Your task to perform on an android device: find which apps use the phone's location Image 0: 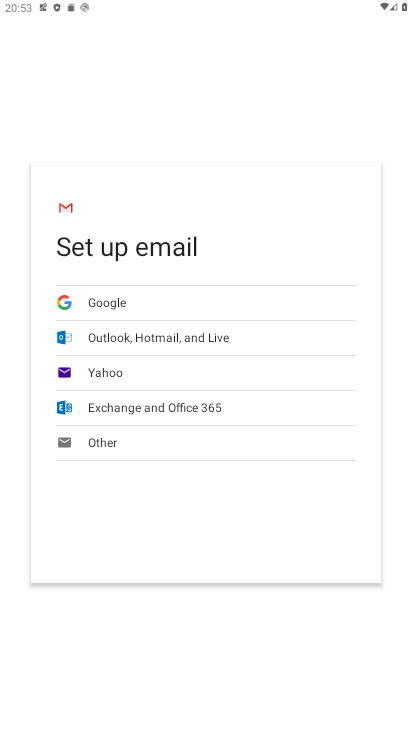
Step 0: press home button
Your task to perform on an android device: find which apps use the phone's location Image 1: 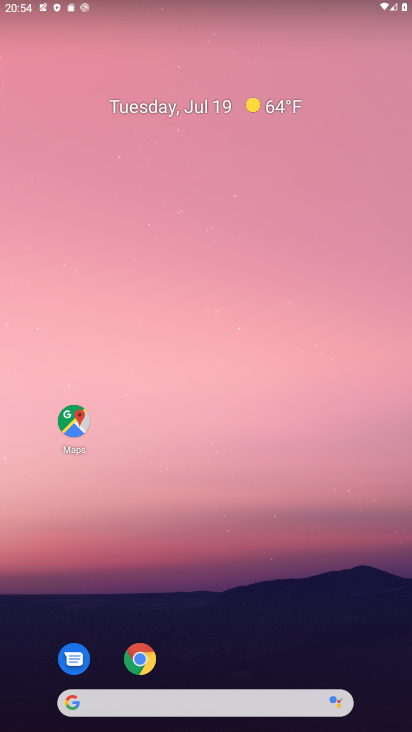
Step 1: drag from (207, 636) to (265, 71)
Your task to perform on an android device: find which apps use the phone's location Image 2: 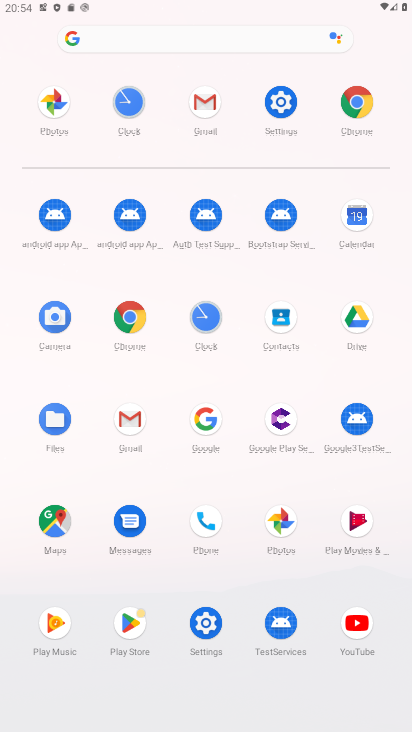
Step 2: click (289, 102)
Your task to perform on an android device: find which apps use the phone's location Image 3: 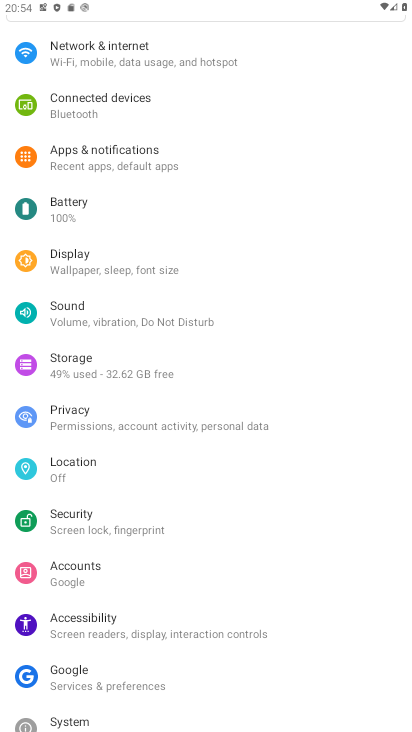
Step 3: click (88, 476)
Your task to perform on an android device: find which apps use the phone's location Image 4: 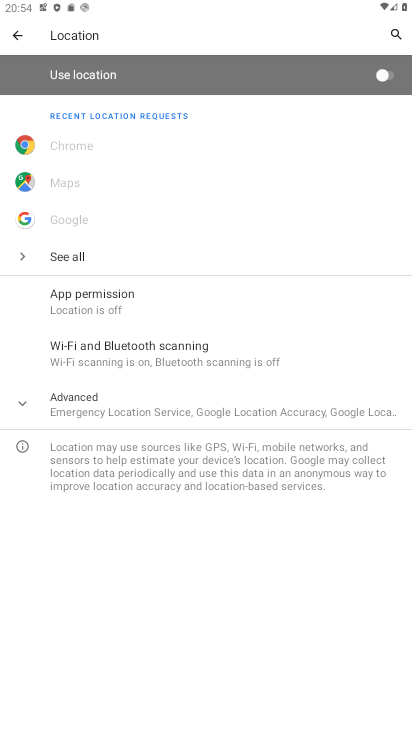
Step 4: click (93, 265)
Your task to perform on an android device: find which apps use the phone's location Image 5: 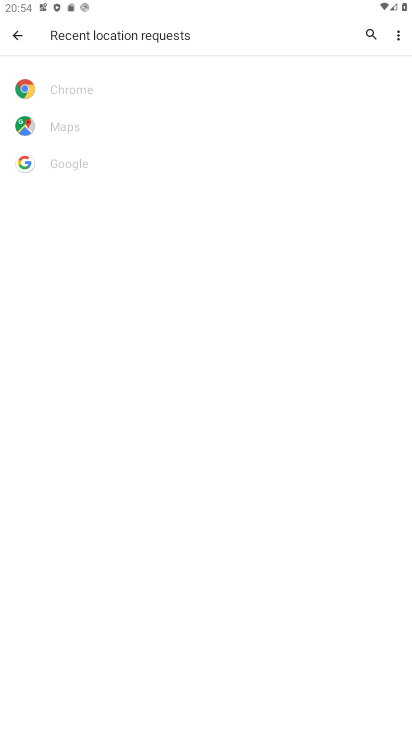
Step 5: task complete